Your task to perform on an android device: Open my contact list Image 0: 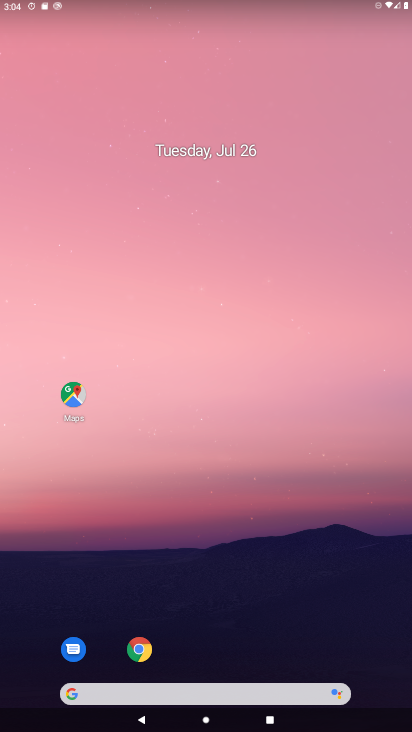
Step 0: drag from (318, 640) to (170, 53)
Your task to perform on an android device: Open my contact list Image 1: 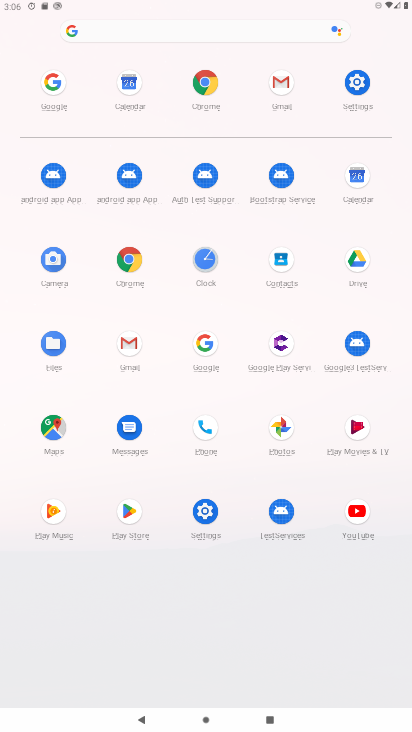
Step 1: click (292, 264)
Your task to perform on an android device: Open my contact list Image 2: 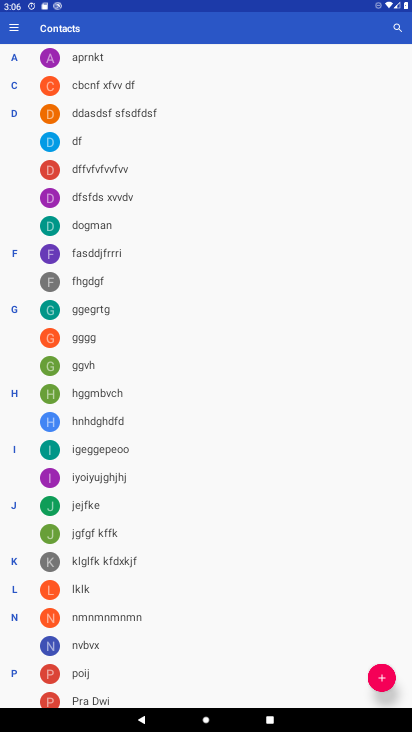
Step 2: task complete